Your task to perform on an android device: Open sound settings Image 0: 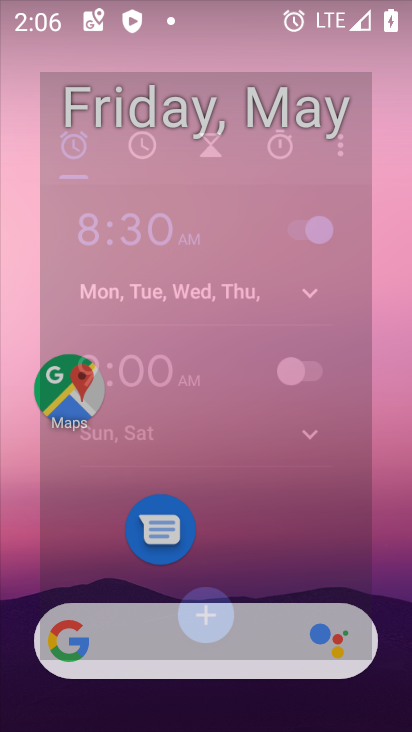
Step 0: drag from (213, 556) to (244, 145)
Your task to perform on an android device: Open sound settings Image 1: 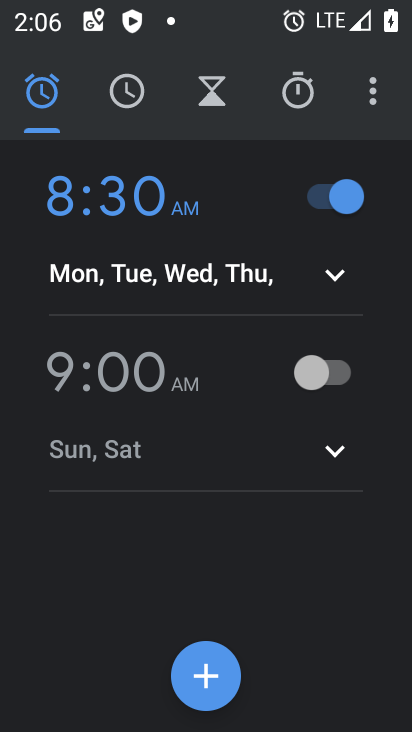
Step 1: press home button
Your task to perform on an android device: Open sound settings Image 2: 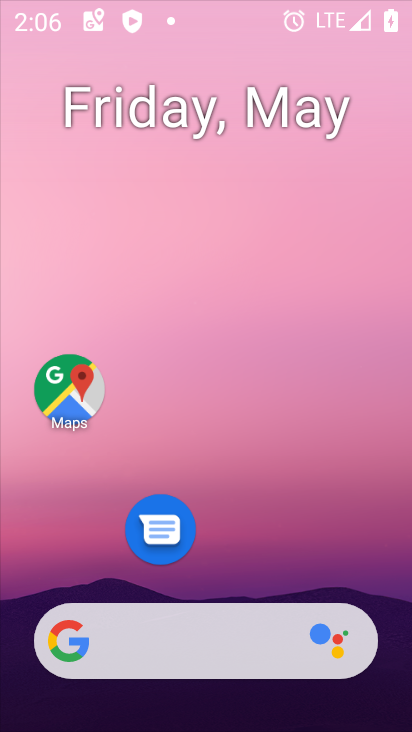
Step 2: drag from (227, 599) to (243, 311)
Your task to perform on an android device: Open sound settings Image 3: 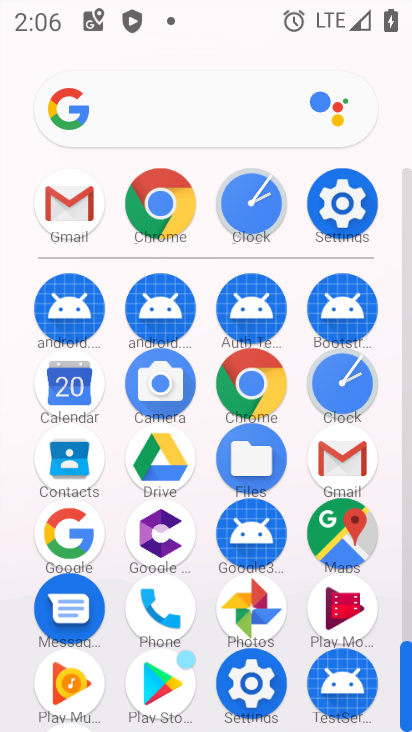
Step 3: drag from (194, 658) to (172, 215)
Your task to perform on an android device: Open sound settings Image 4: 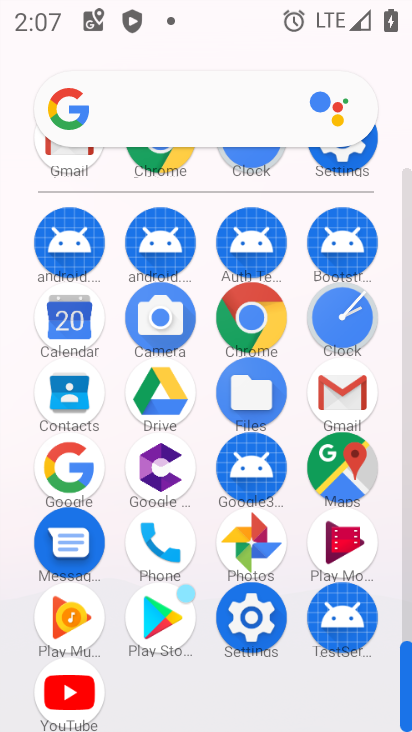
Step 4: click (250, 622)
Your task to perform on an android device: Open sound settings Image 5: 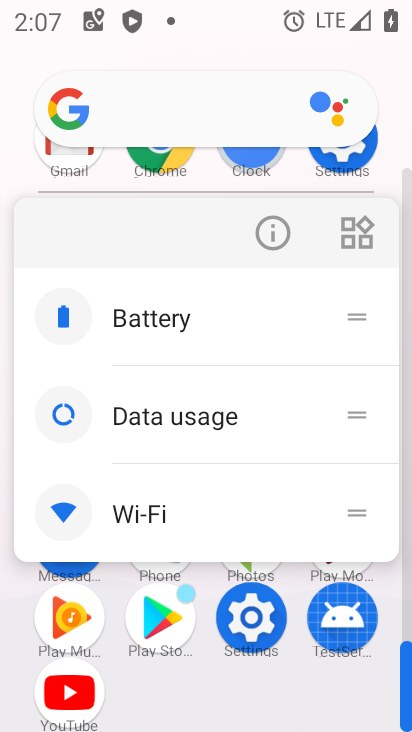
Step 5: click (284, 236)
Your task to perform on an android device: Open sound settings Image 6: 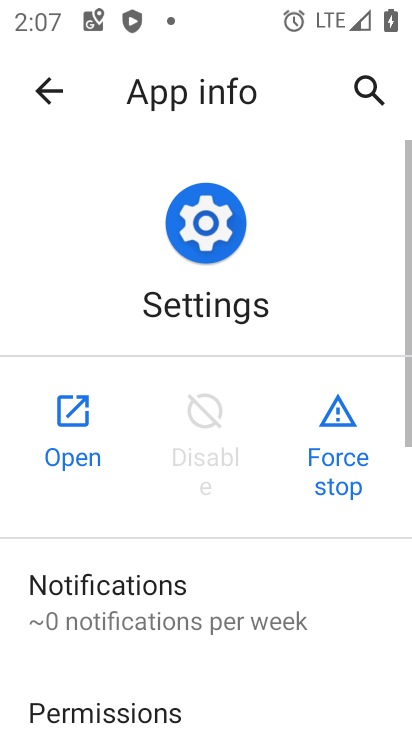
Step 6: click (99, 410)
Your task to perform on an android device: Open sound settings Image 7: 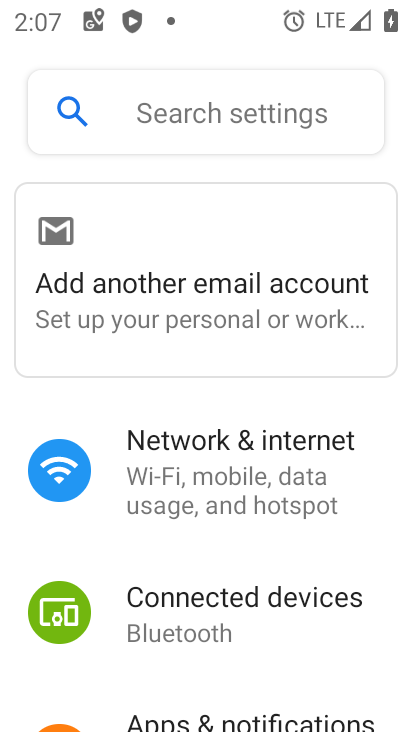
Step 7: drag from (230, 681) to (216, 72)
Your task to perform on an android device: Open sound settings Image 8: 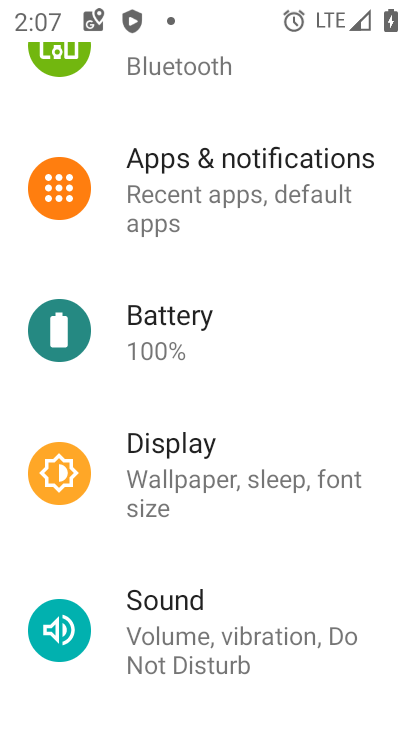
Step 8: drag from (254, 613) to (282, 178)
Your task to perform on an android device: Open sound settings Image 9: 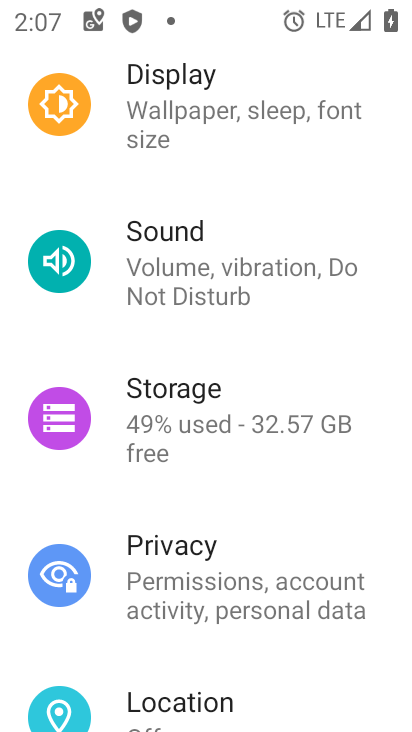
Step 9: click (210, 277)
Your task to perform on an android device: Open sound settings Image 10: 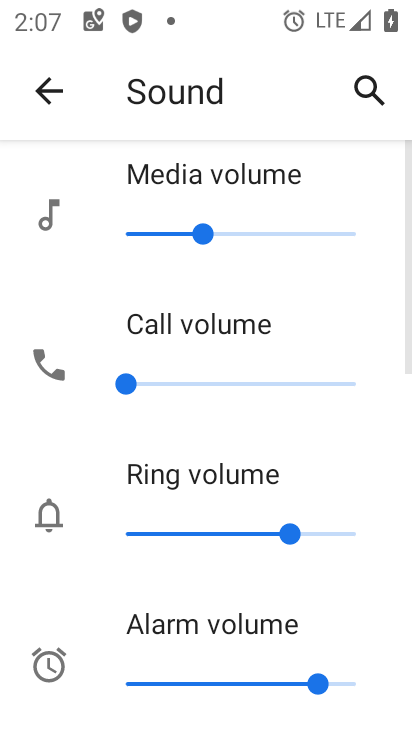
Step 10: task complete